Your task to perform on an android device: visit the assistant section in the google photos Image 0: 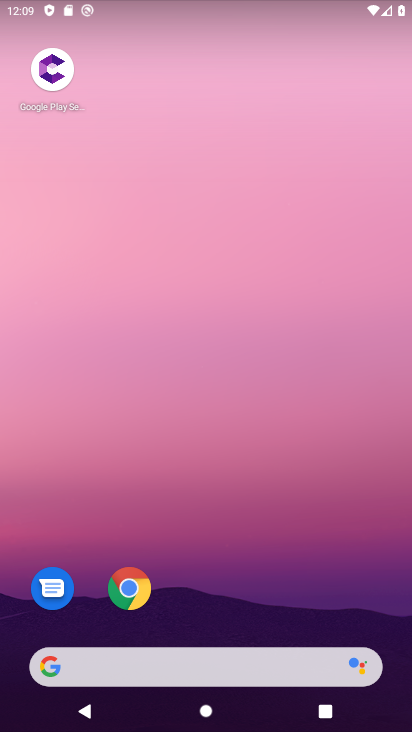
Step 0: drag from (377, 625) to (320, 134)
Your task to perform on an android device: visit the assistant section in the google photos Image 1: 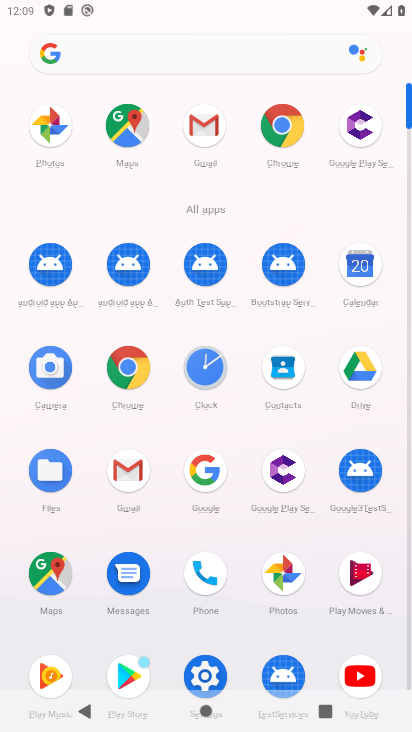
Step 1: click (411, 678)
Your task to perform on an android device: visit the assistant section in the google photos Image 2: 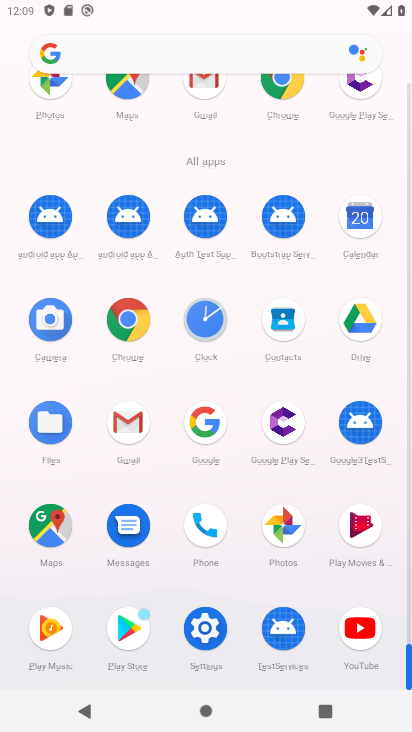
Step 2: click (282, 525)
Your task to perform on an android device: visit the assistant section in the google photos Image 3: 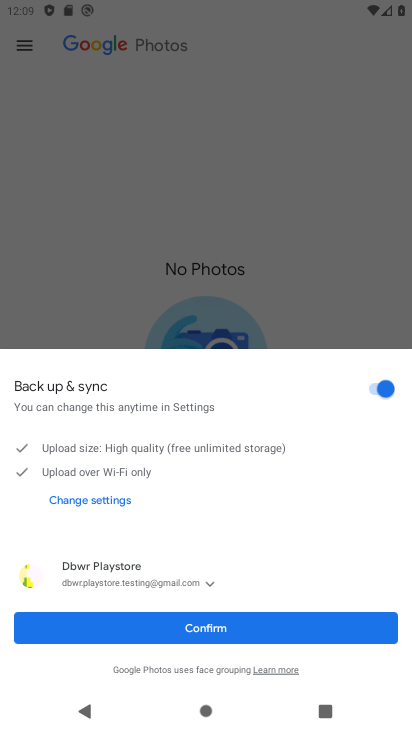
Step 3: click (229, 634)
Your task to perform on an android device: visit the assistant section in the google photos Image 4: 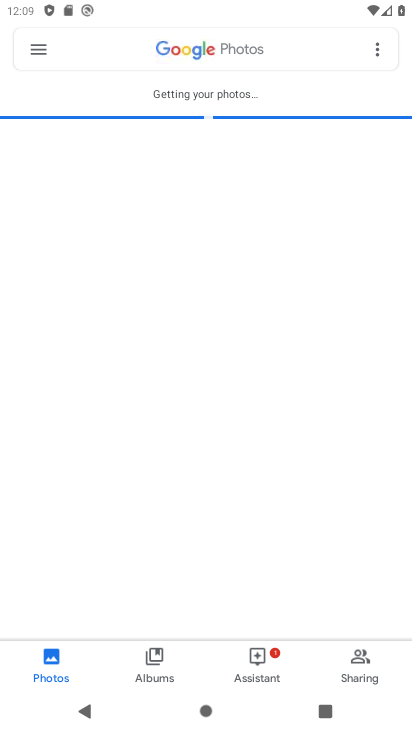
Step 4: click (253, 656)
Your task to perform on an android device: visit the assistant section in the google photos Image 5: 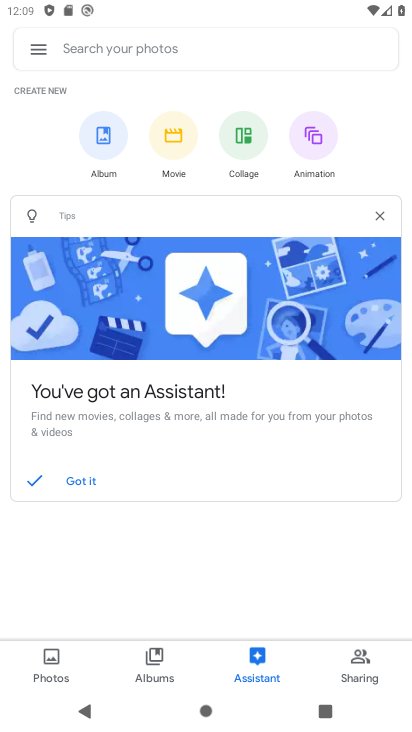
Step 5: task complete